Your task to perform on an android device: Go to battery settings Image 0: 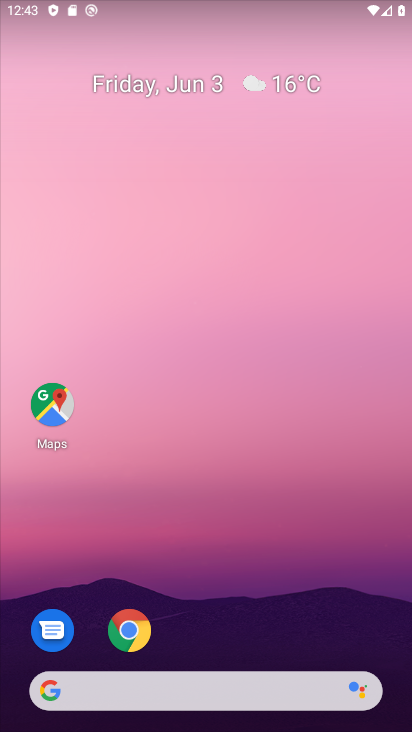
Step 0: drag from (247, 709) to (155, 116)
Your task to perform on an android device: Go to battery settings Image 1: 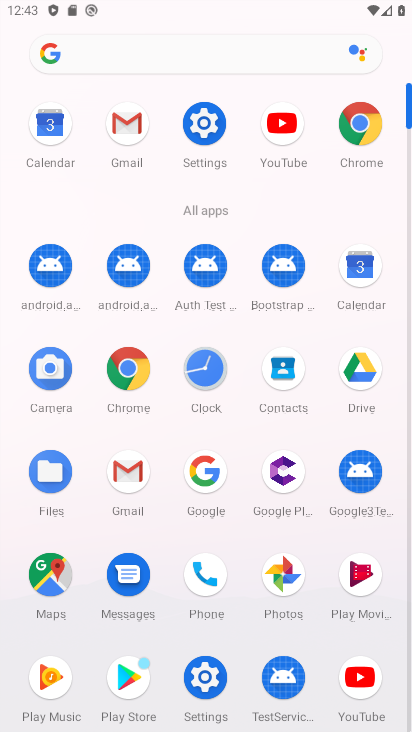
Step 1: click (204, 134)
Your task to perform on an android device: Go to battery settings Image 2: 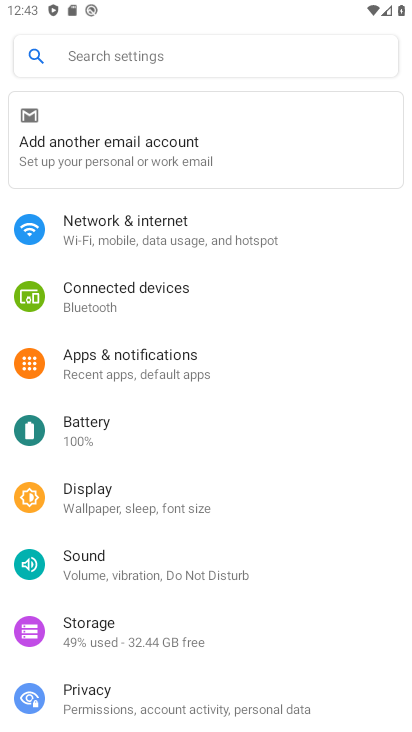
Step 2: click (159, 426)
Your task to perform on an android device: Go to battery settings Image 3: 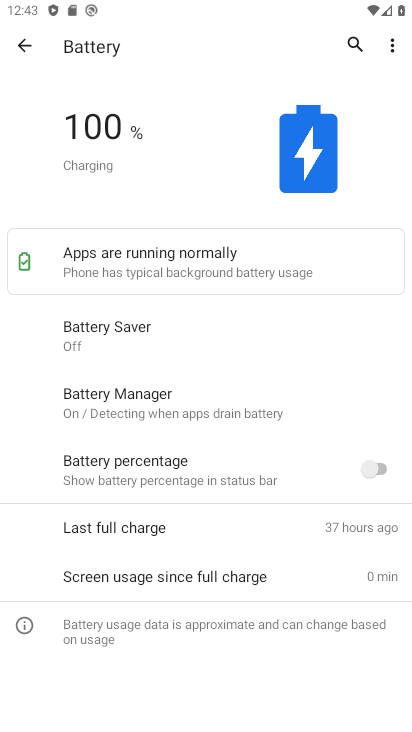
Step 3: task complete